Your task to perform on an android device: Search for sushi restaurants on Maps Image 0: 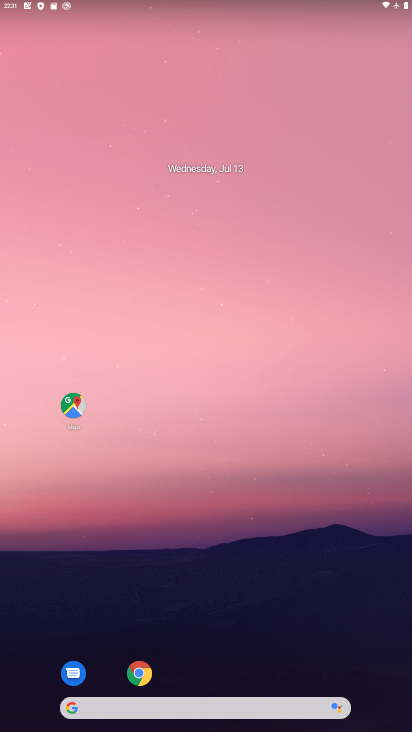
Step 0: click (74, 413)
Your task to perform on an android device: Search for sushi restaurants on Maps Image 1: 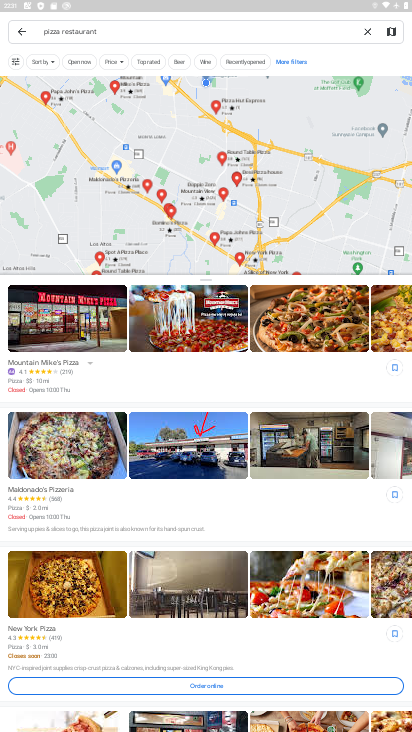
Step 1: click (116, 34)
Your task to perform on an android device: Search for sushi restaurants on Maps Image 2: 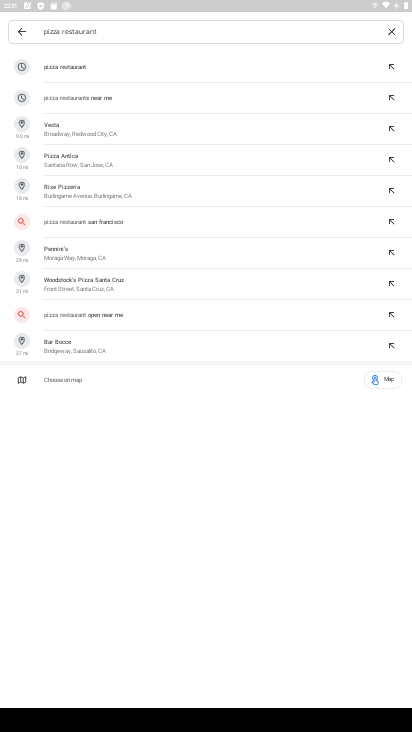
Step 2: click (386, 28)
Your task to perform on an android device: Search for sushi restaurants on Maps Image 3: 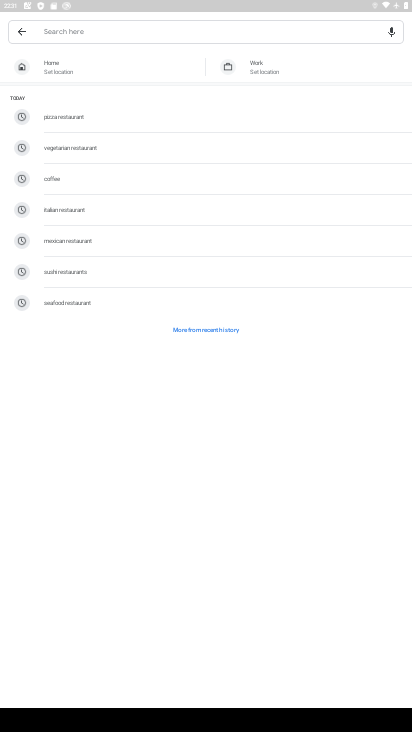
Step 3: click (69, 274)
Your task to perform on an android device: Search for sushi restaurants on Maps Image 4: 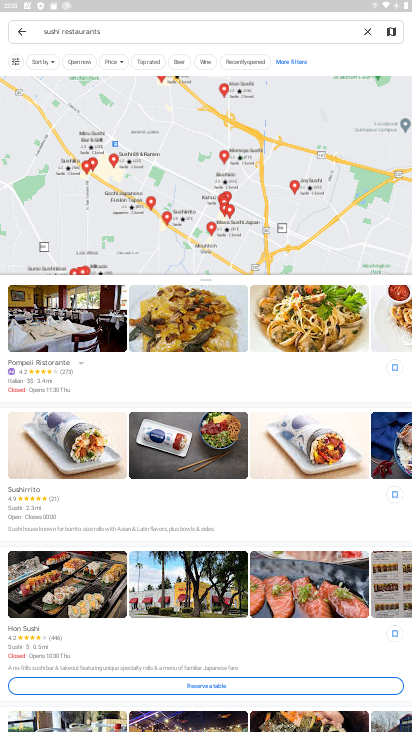
Step 4: task complete